Your task to perform on an android device: turn off location history Image 0: 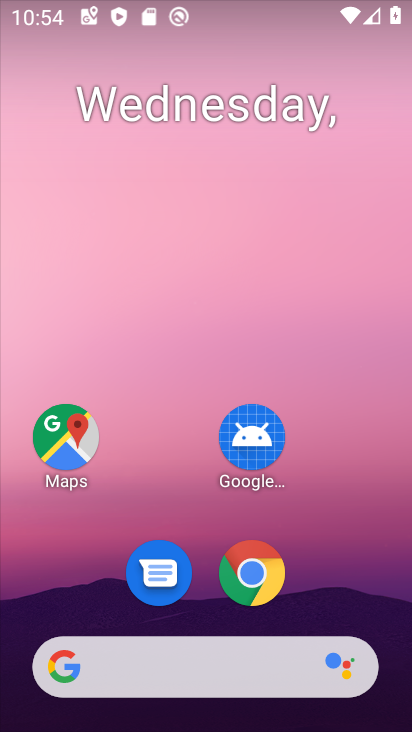
Step 0: drag from (155, 453) to (236, 1)
Your task to perform on an android device: turn off location history Image 1: 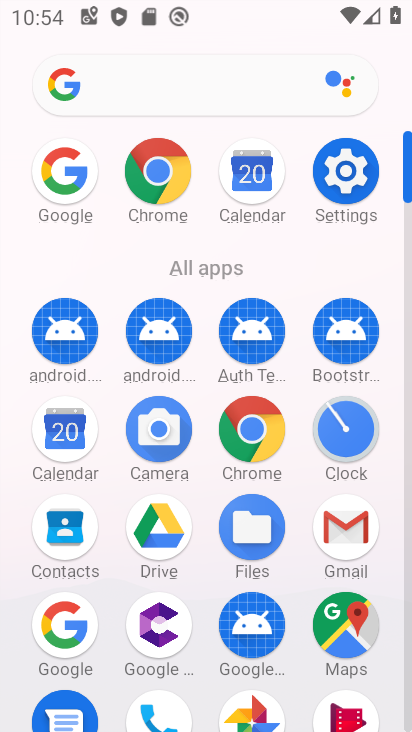
Step 1: click (347, 170)
Your task to perform on an android device: turn off location history Image 2: 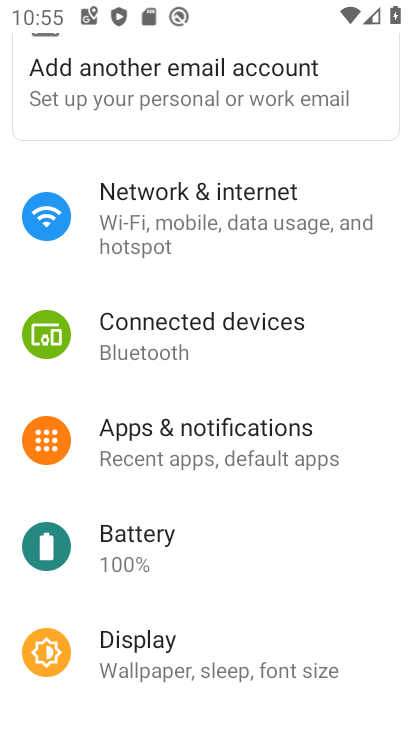
Step 2: drag from (240, 606) to (269, 390)
Your task to perform on an android device: turn off location history Image 3: 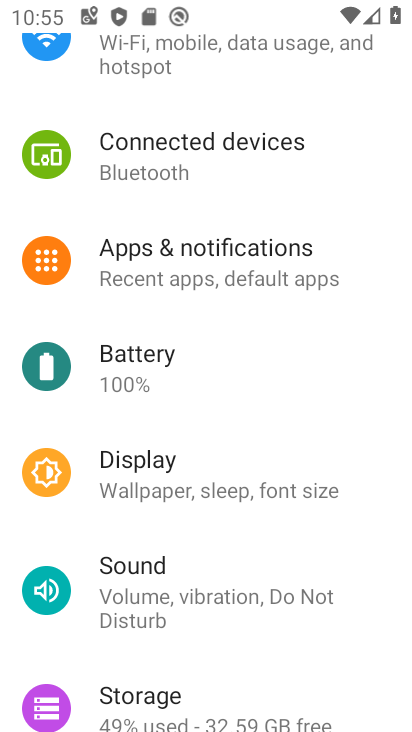
Step 3: drag from (250, 547) to (260, 386)
Your task to perform on an android device: turn off location history Image 4: 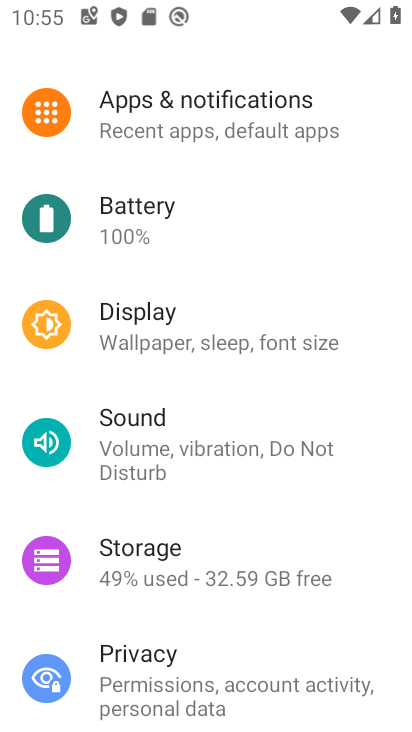
Step 4: drag from (245, 507) to (276, 362)
Your task to perform on an android device: turn off location history Image 5: 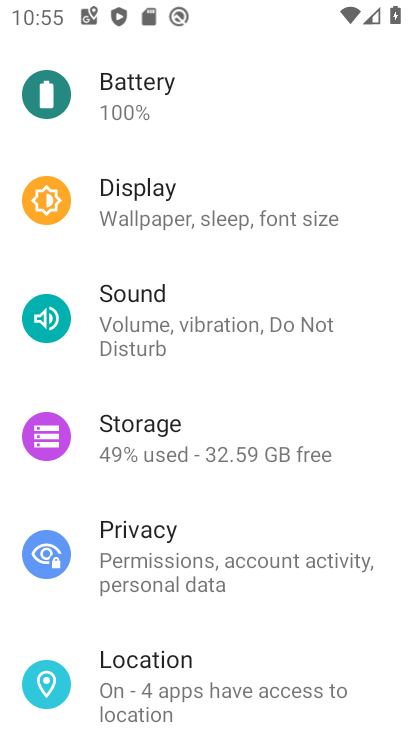
Step 5: drag from (241, 497) to (261, 369)
Your task to perform on an android device: turn off location history Image 6: 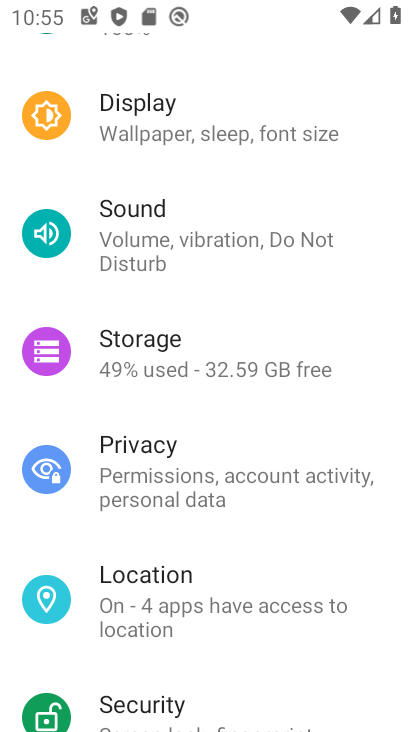
Step 6: click (217, 606)
Your task to perform on an android device: turn off location history Image 7: 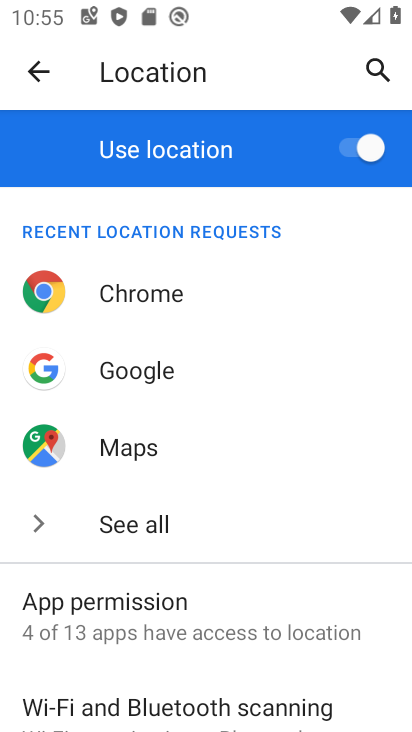
Step 7: drag from (208, 580) to (244, 378)
Your task to perform on an android device: turn off location history Image 8: 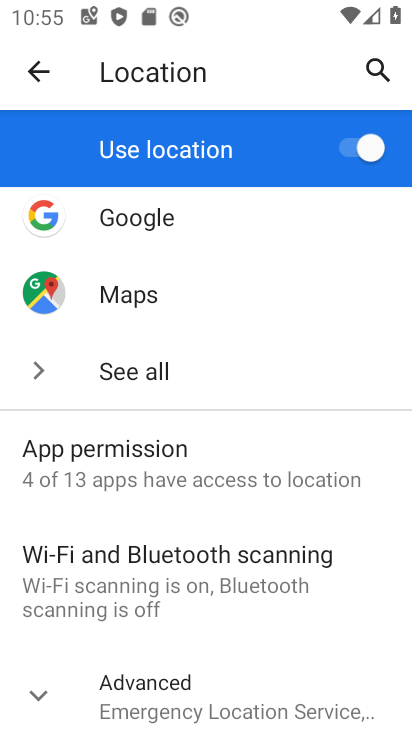
Step 8: drag from (234, 603) to (285, 461)
Your task to perform on an android device: turn off location history Image 9: 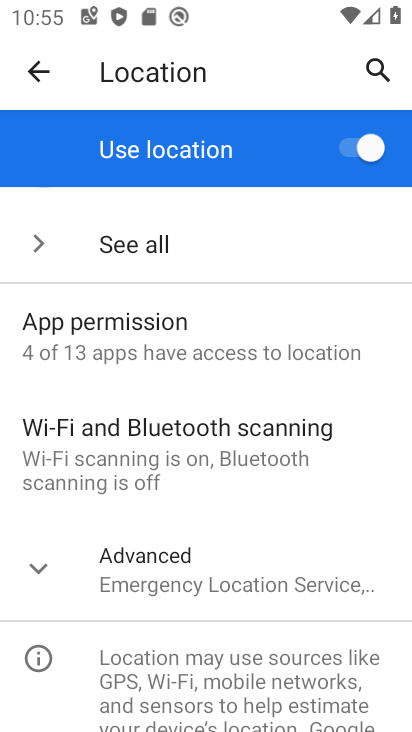
Step 9: click (252, 578)
Your task to perform on an android device: turn off location history Image 10: 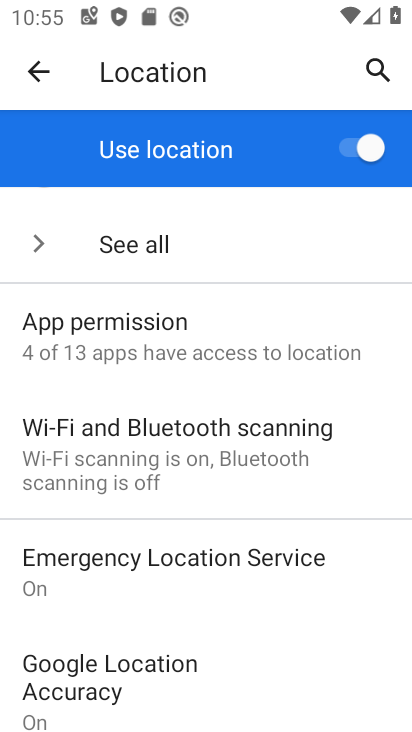
Step 10: task complete